Your task to perform on an android device: Open the calendar app, open the side menu, and click the "Day" option Image 0: 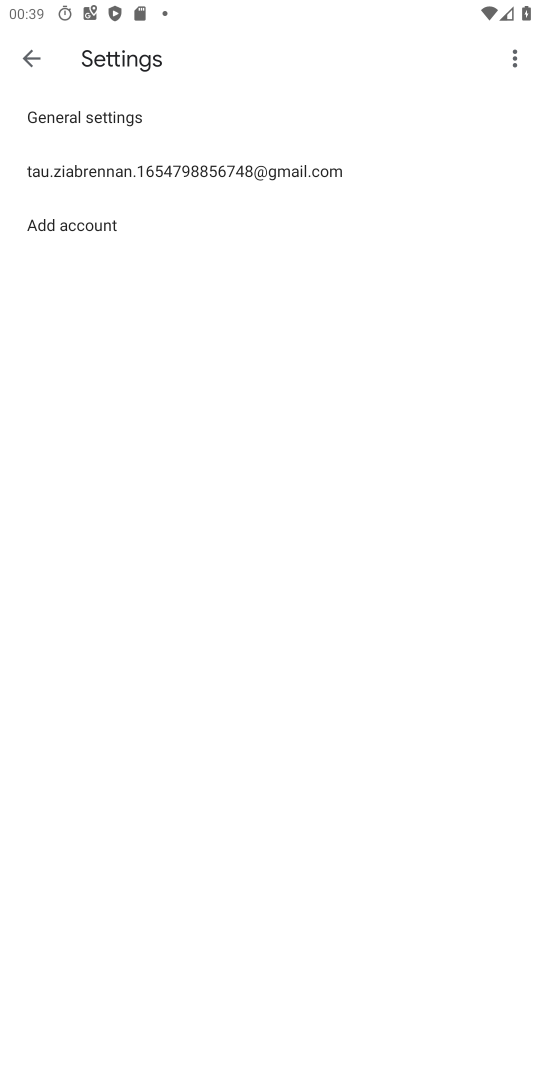
Step 0: press home button
Your task to perform on an android device: Open the calendar app, open the side menu, and click the "Day" option Image 1: 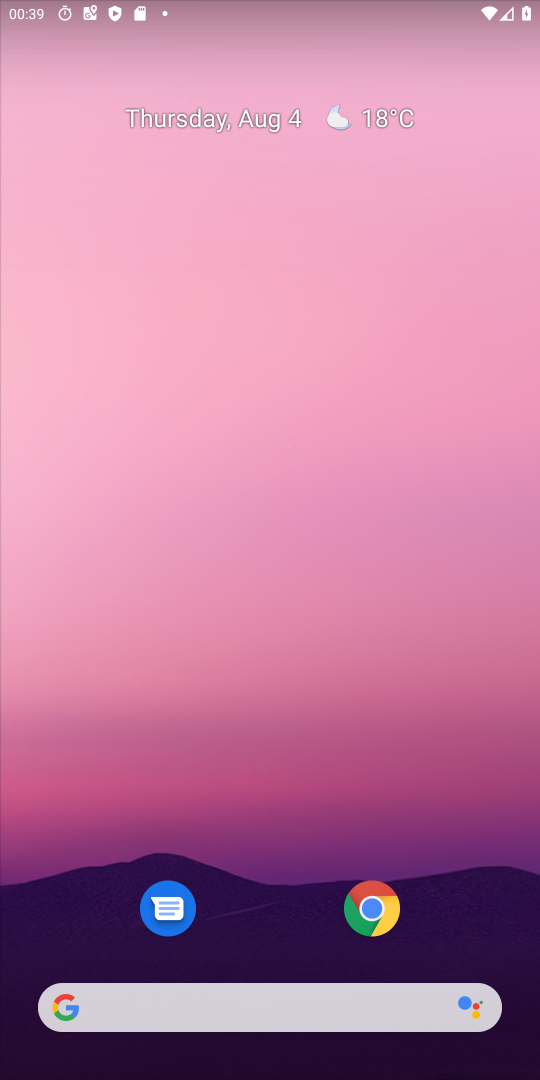
Step 1: drag from (326, 1005) to (222, 191)
Your task to perform on an android device: Open the calendar app, open the side menu, and click the "Day" option Image 2: 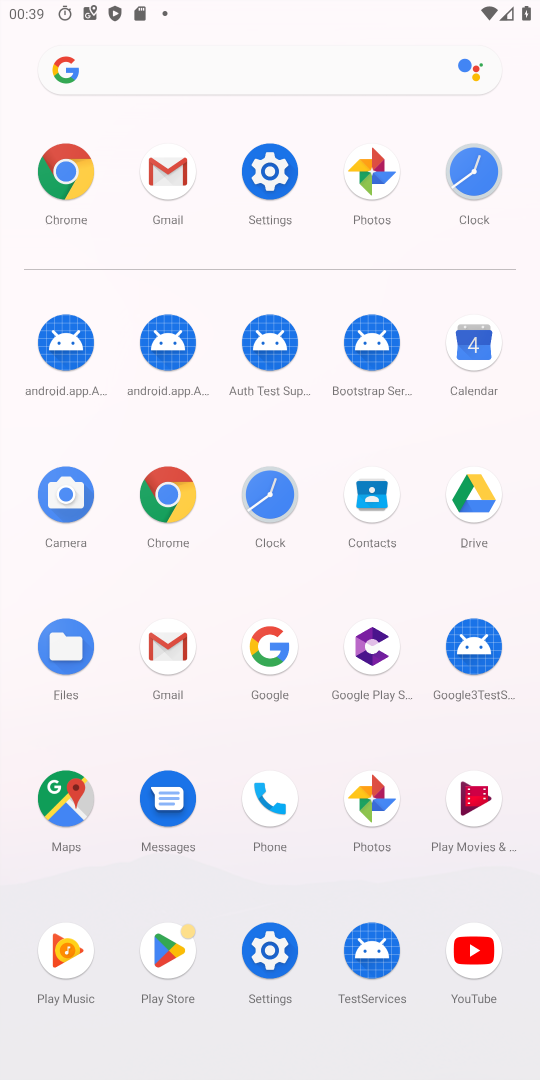
Step 2: click (460, 352)
Your task to perform on an android device: Open the calendar app, open the side menu, and click the "Day" option Image 3: 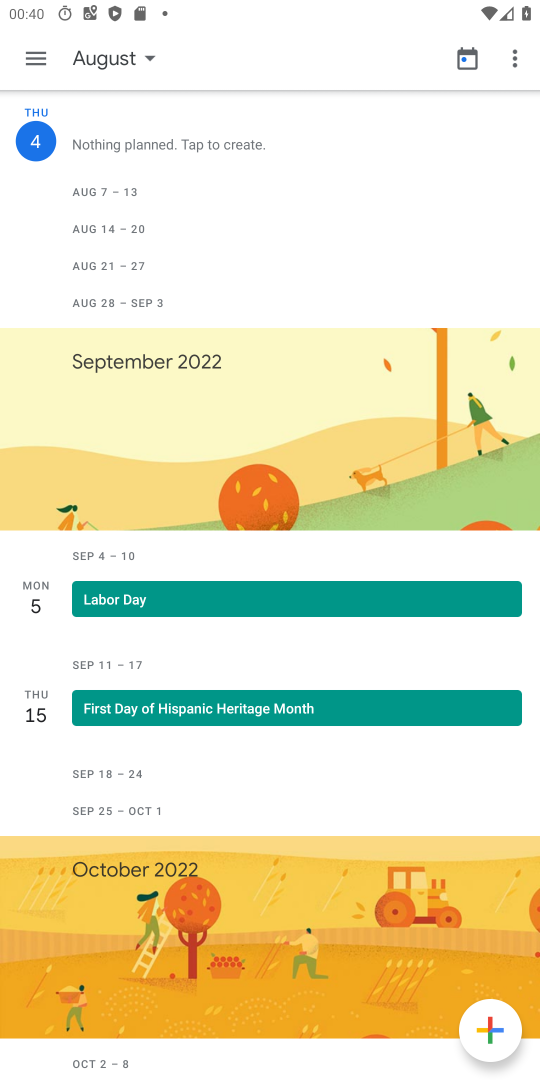
Step 3: click (14, 40)
Your task to perform on an android device: Open the calendar app, open the side menu, and click the "Day" option Image 4: 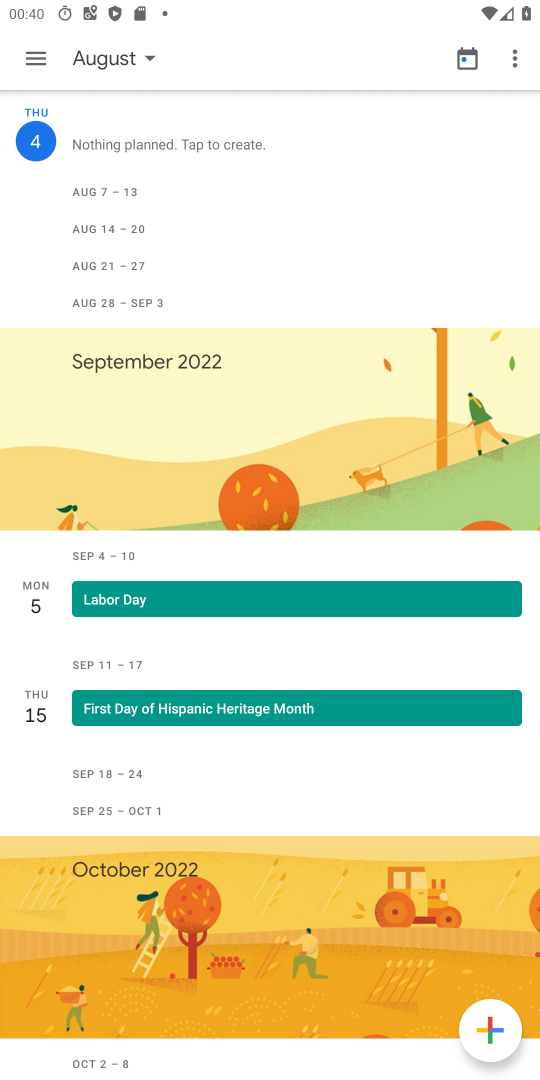
Step 4: click (34, 56)
Your task to perform on an android device: Open the calendar app, open the side menu, and click the "Day" option Image 5: 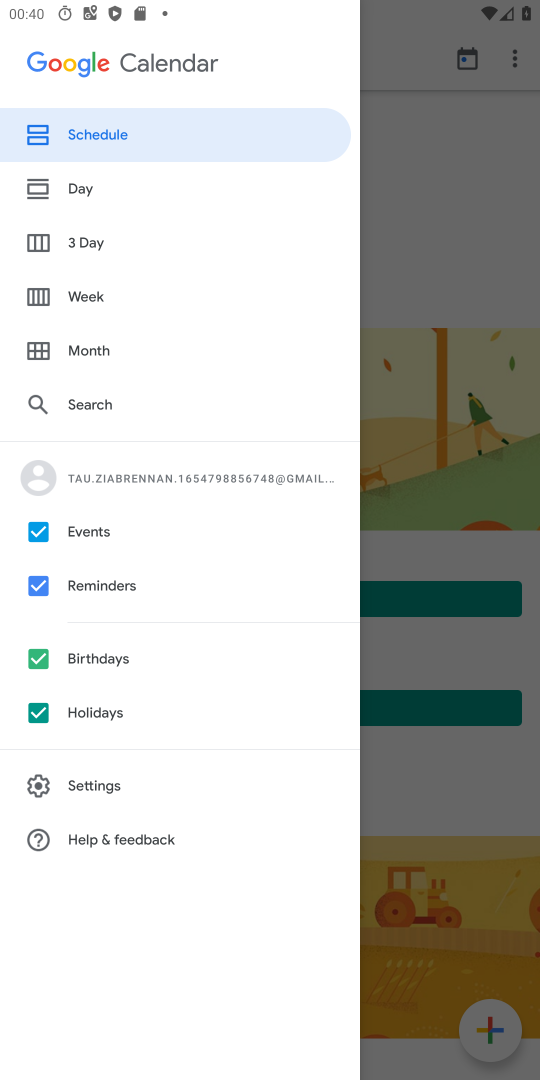
Step 5: click (77, 180)
Your task to perform on an android device: Open the calendar app, open the side menu, and click the "Day" option Image 6: 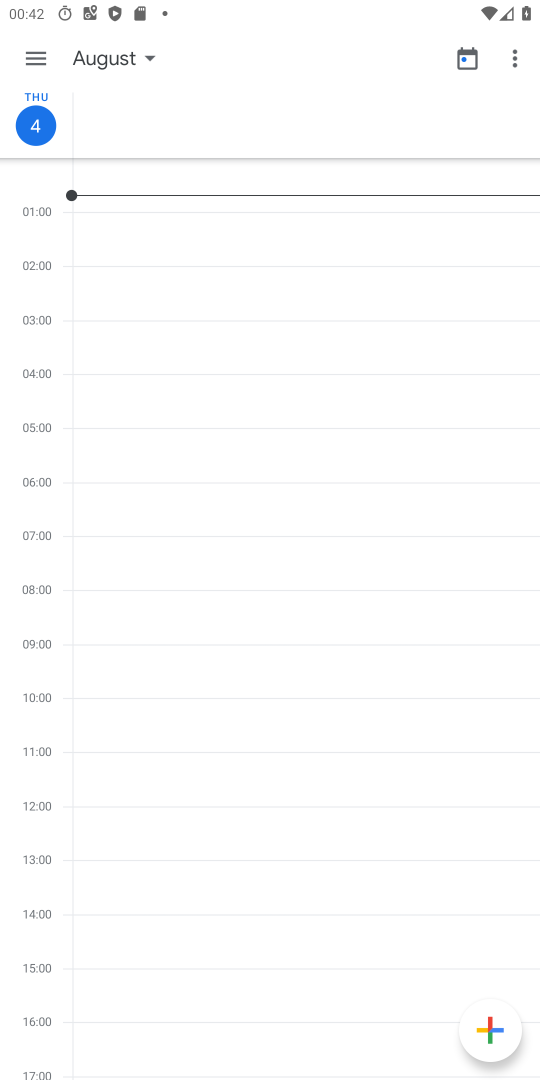
Step 6: task complete